Your task to perform on an android device: show emergency info Image 0: 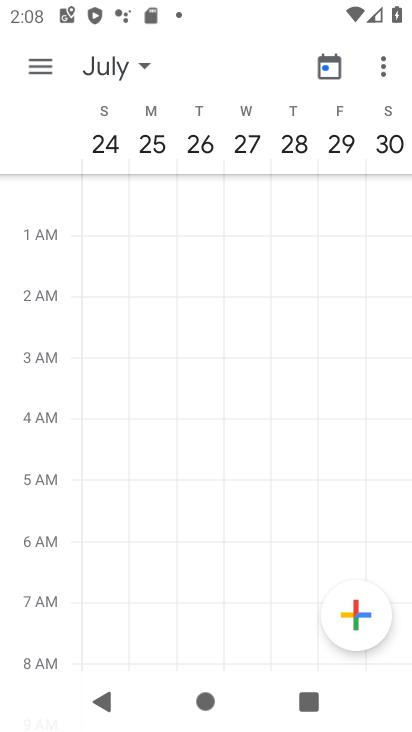
Step 0: press home button
Your task to perform on an android device: show emergency info Image 1: 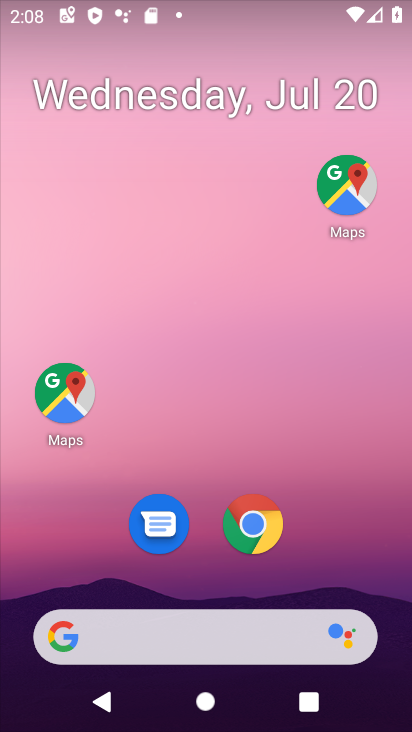
Step 1: drag from (209, 468) to (222, 11)
Your task to perform on an android device: show emergency info Image 2: 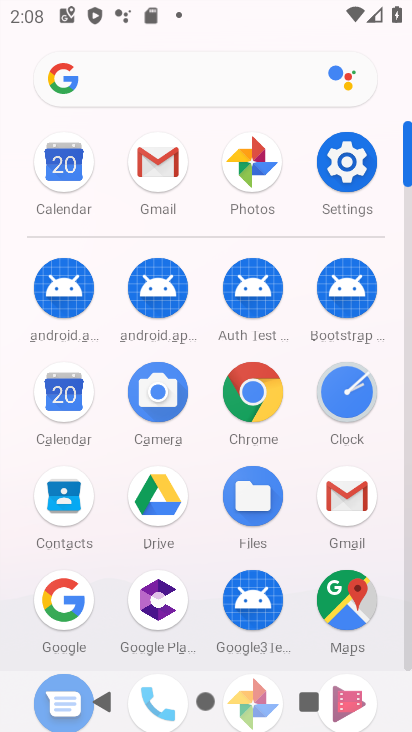
Step 2: click (348, 168)
Your task to perform on an android device: show emergency info Image 3: 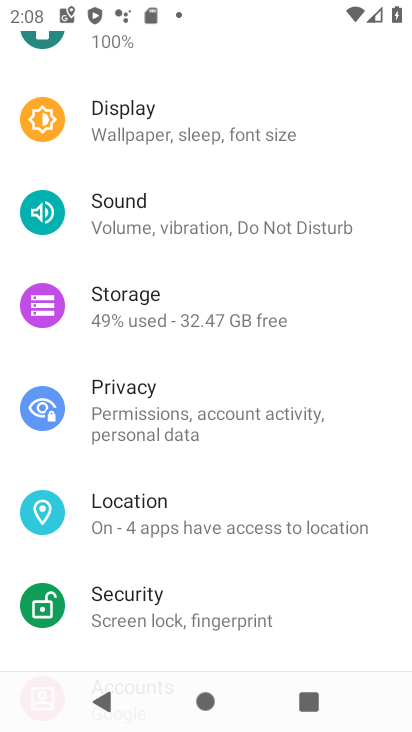
Step 3: drag from (227, 580) to (269, 0)
Your task to perform on an android device: show emergency info Image 4: 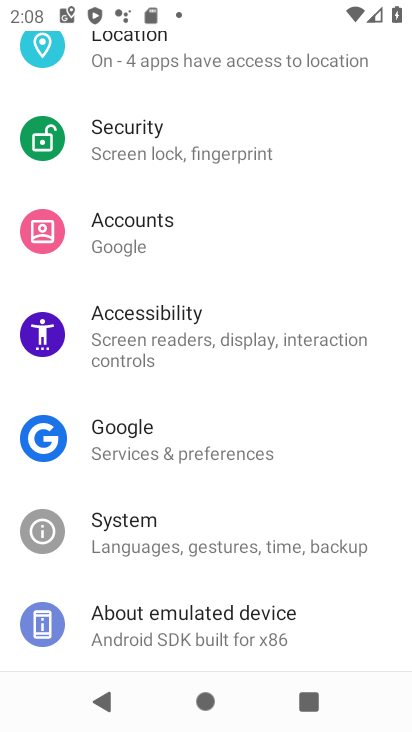
Step 4: click (157, 625)
Your task to perform on an android device: show emergency info Image 5: 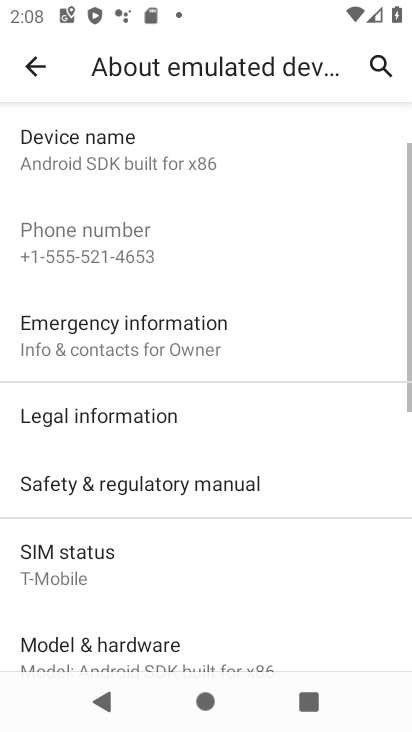
Step 5: click (200, 341)
Your task to perform on an android device: show emergency info Image 6: 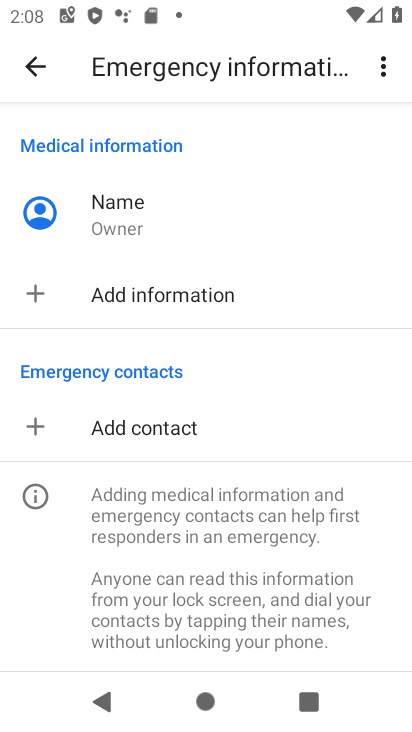
Step 6: task complete